Your task to perform on an android device: Go to eBay Image 0: 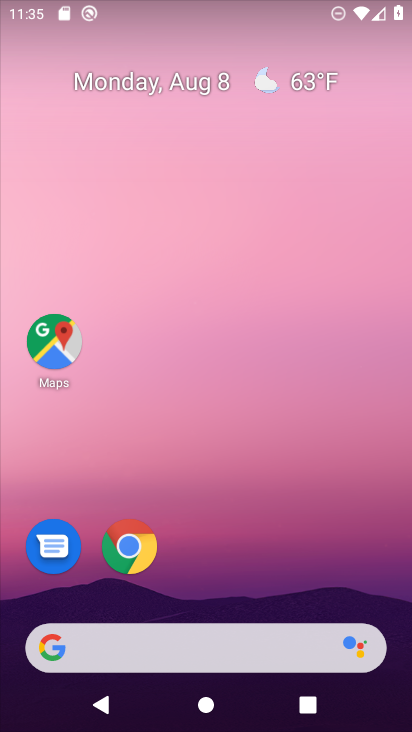
Step 0: press home button
Your task to perform on an android device: Go to eBay Image 1: 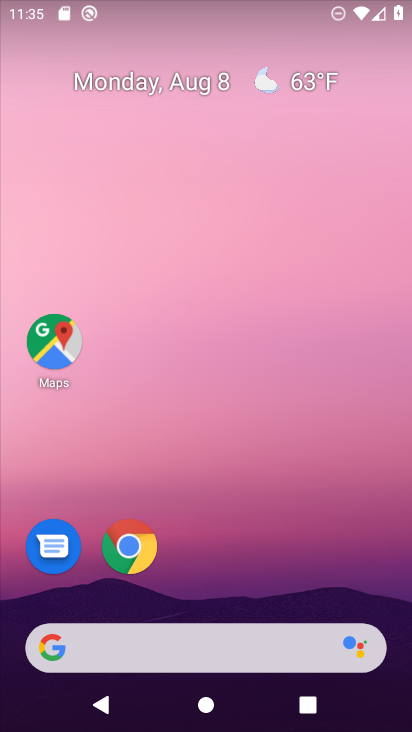
Step 1: drag from (226, 602) to (232, 0)
Your task to perform on an android device: Go to eBay Image 2: 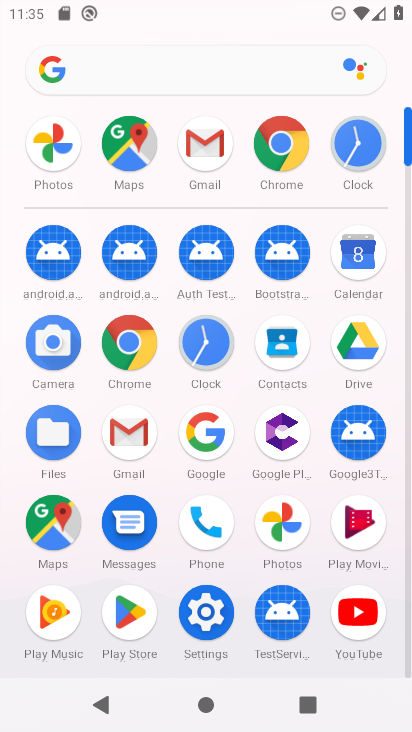
Step 2: click (277, 140)
Your task to perform on an android device: Go to eBay Image 3: 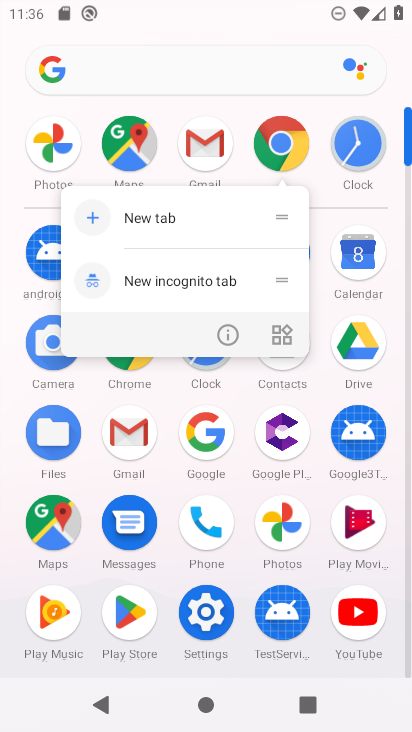
Step 3: click (276, 139)
Your task to perform on an android device: Go to eBay Image 4: 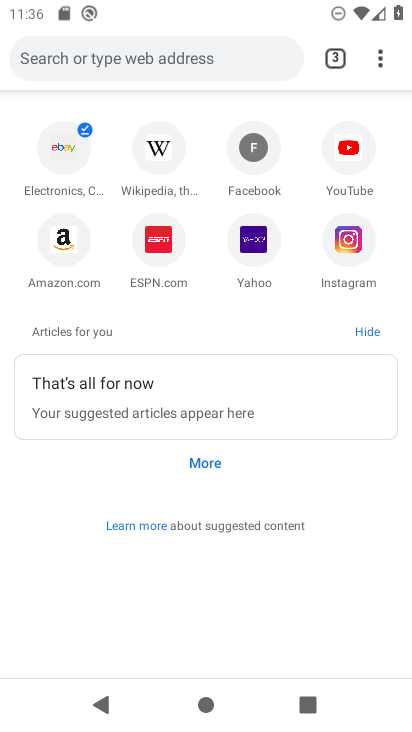
Step 4: click (336, 51)
Your task to perform on an android device: Go to eBay Image 5: 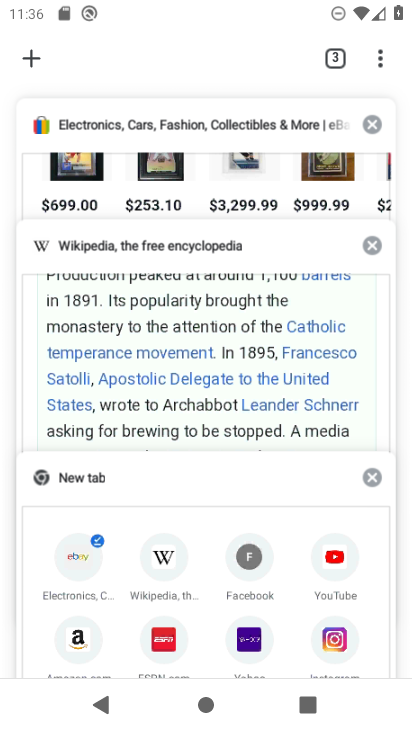
Step 5: click (202, 159)
Your task to perform on an android device: Go to eBay Image 6: 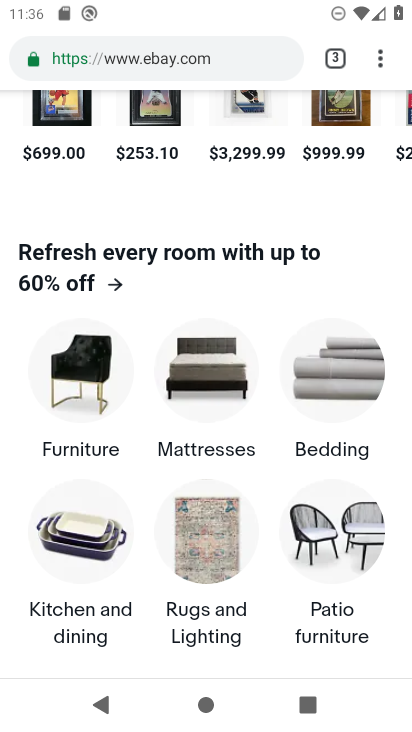
Step 6: task complete